Your task to perform on an android device: turn on notifications settings in the gmail app Image 0: 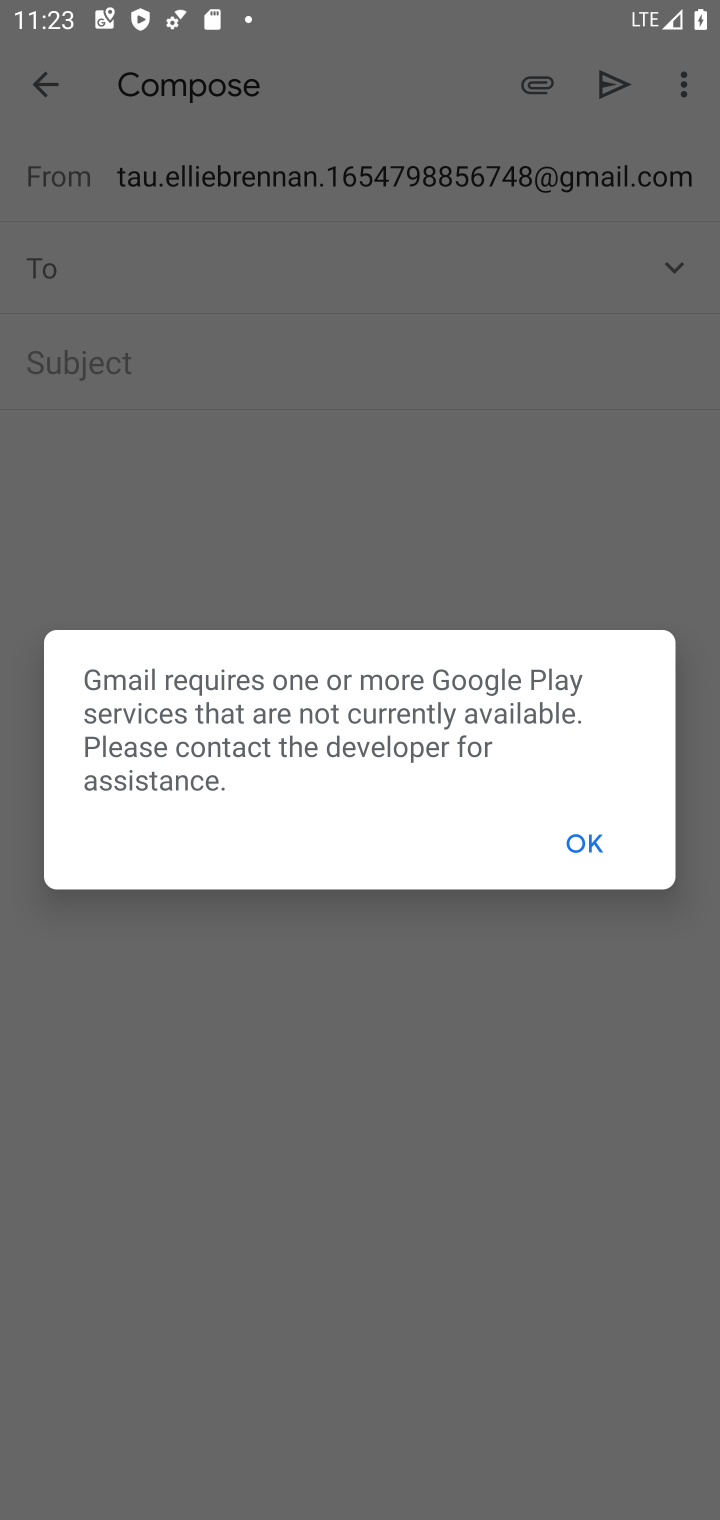
Step 0: click (588, 843)
Your task to perform on an android device: turn on notifications settings in the gmail app Image 1: 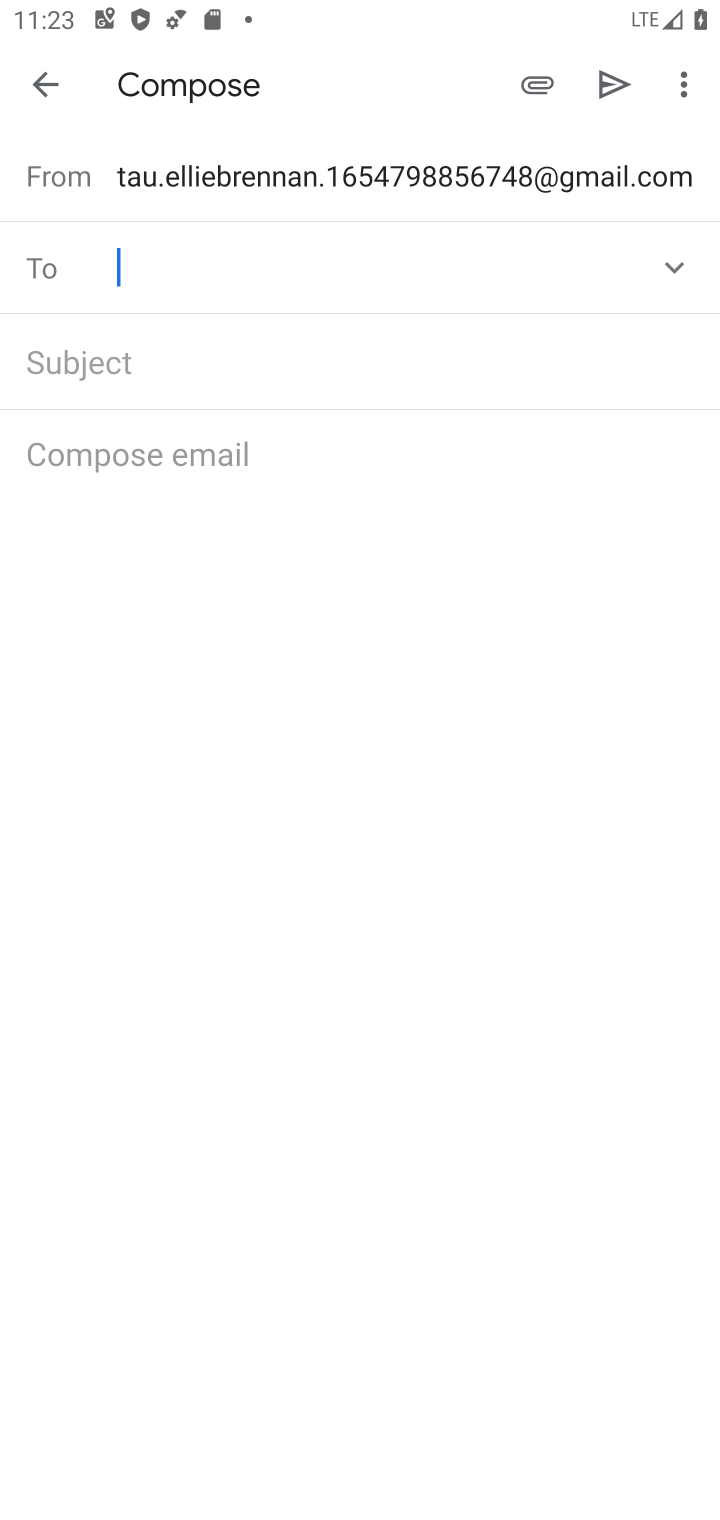
Step 1: press back button
Your task to perform on an android device: turn on notifications settings in the gmail app Image 2: 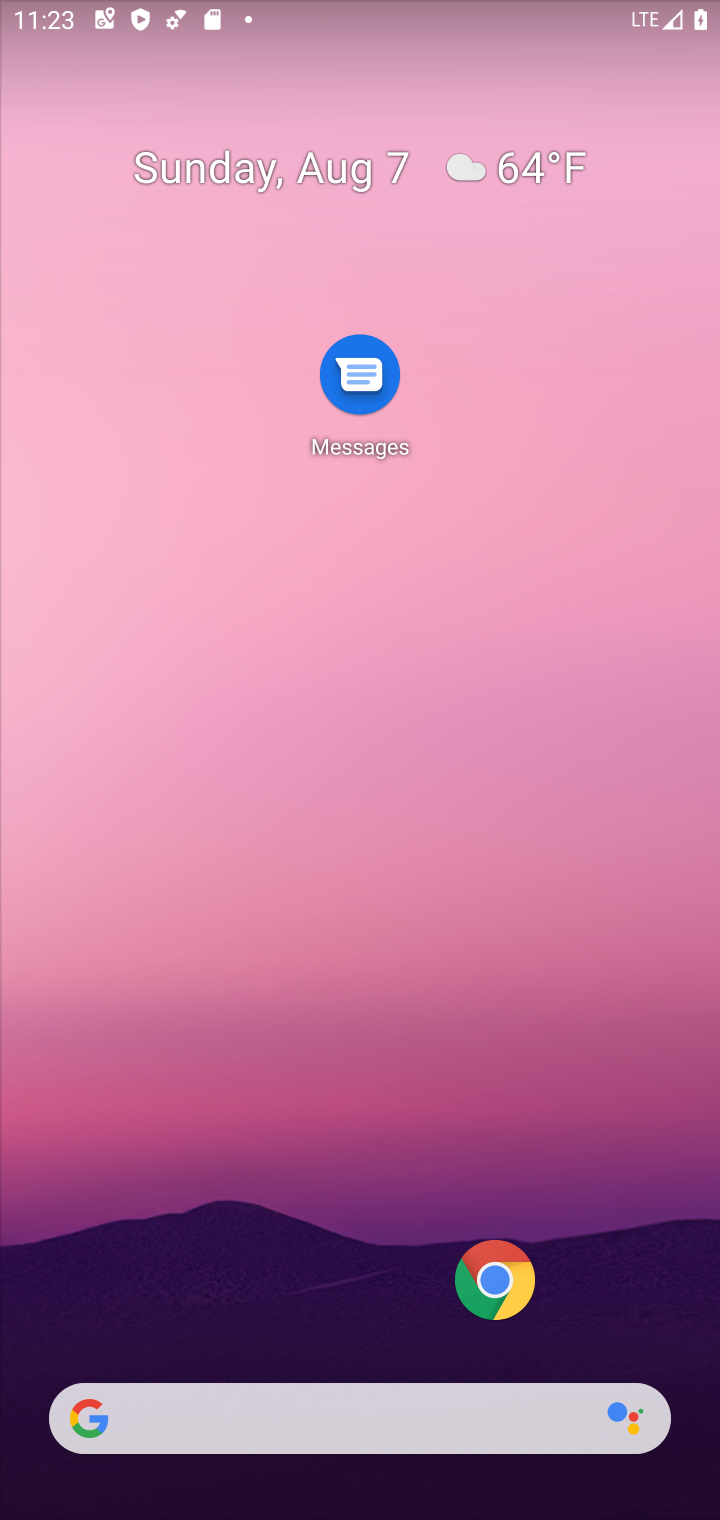
Step 2: drag from (280, 1311) to (466, 148)
Your task to perform on an android device: turn on notifications settings in the gmail app Image 3: 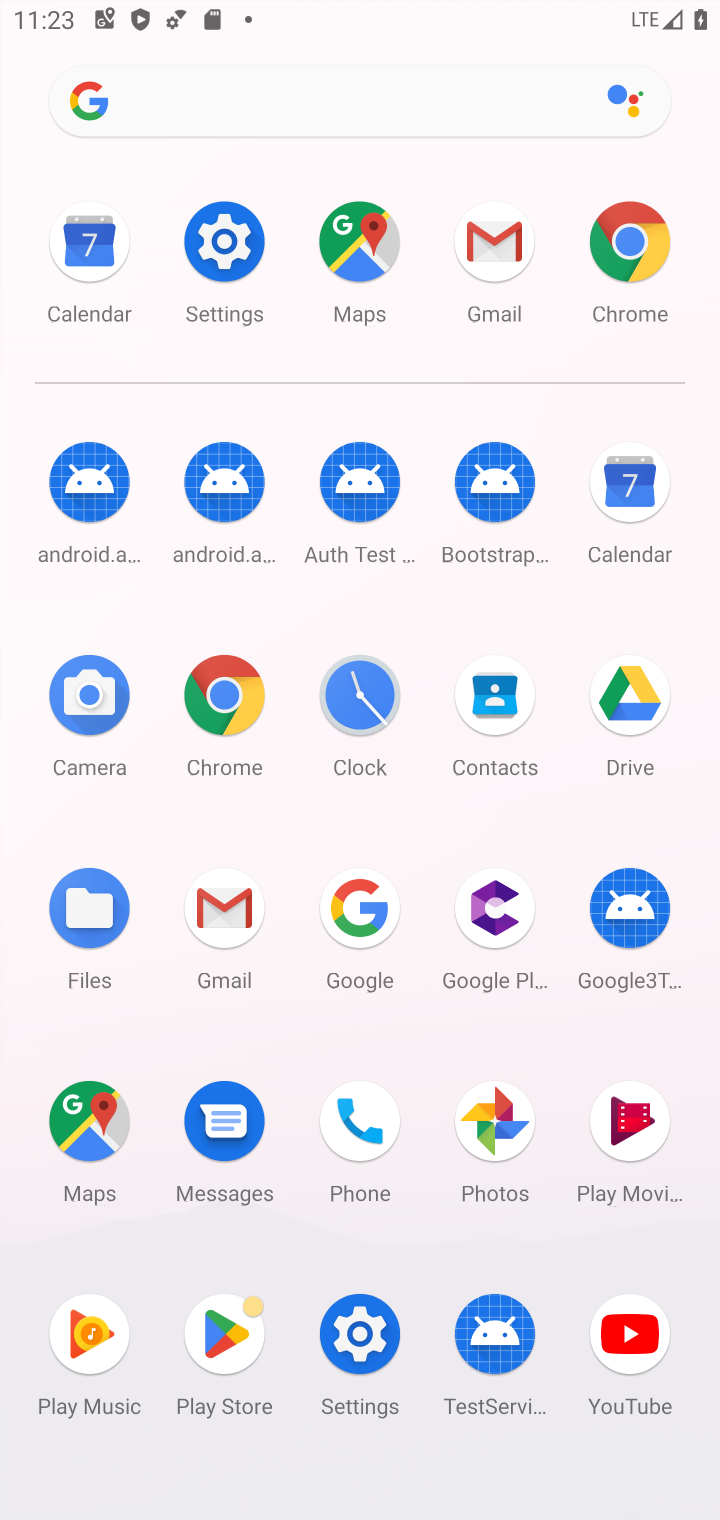
Step 3: click (492, 256)
Your task to perform on an android device: turn on notifications settings in the gmail app Image 4: 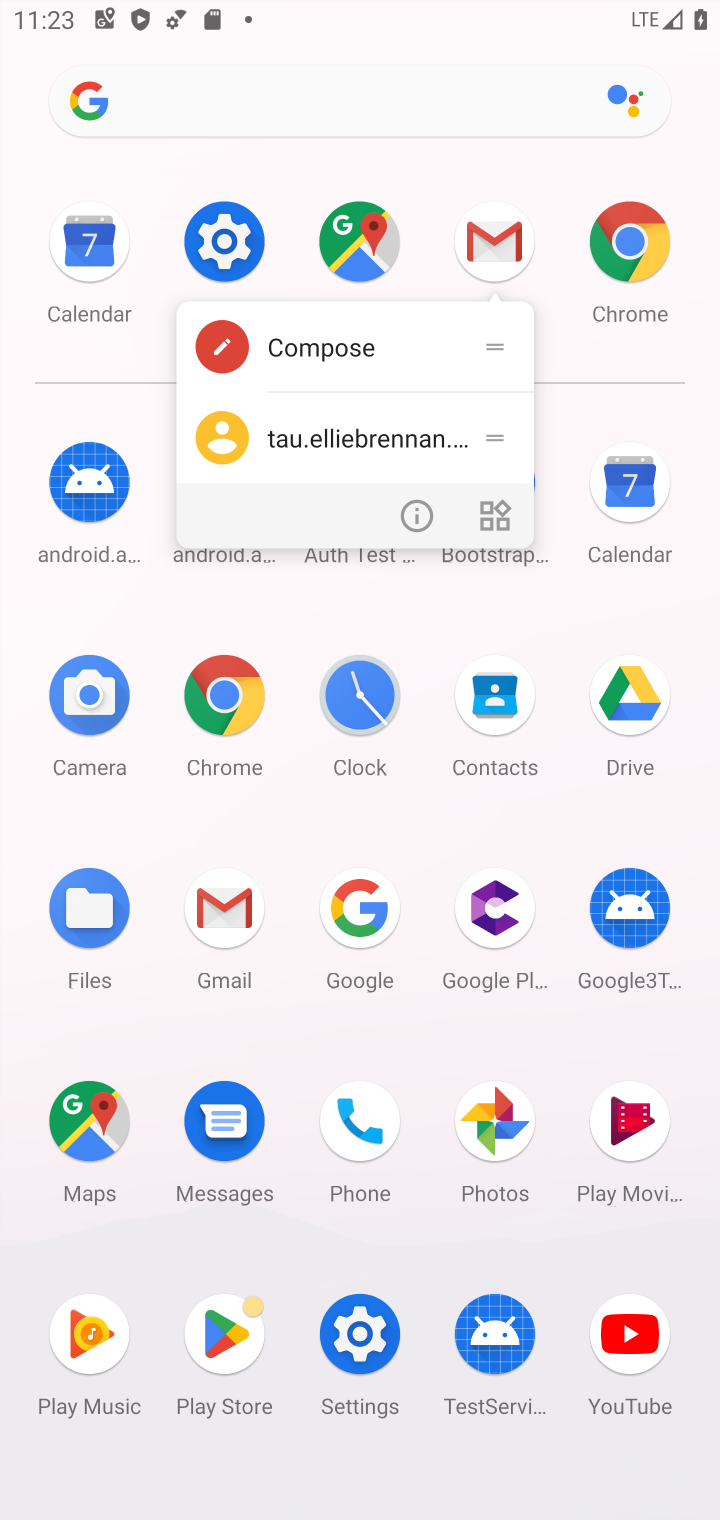
Step 4: click (403, 524)
Your task to perform on an android device: turn on notifications settings in the gmail app Image 5: 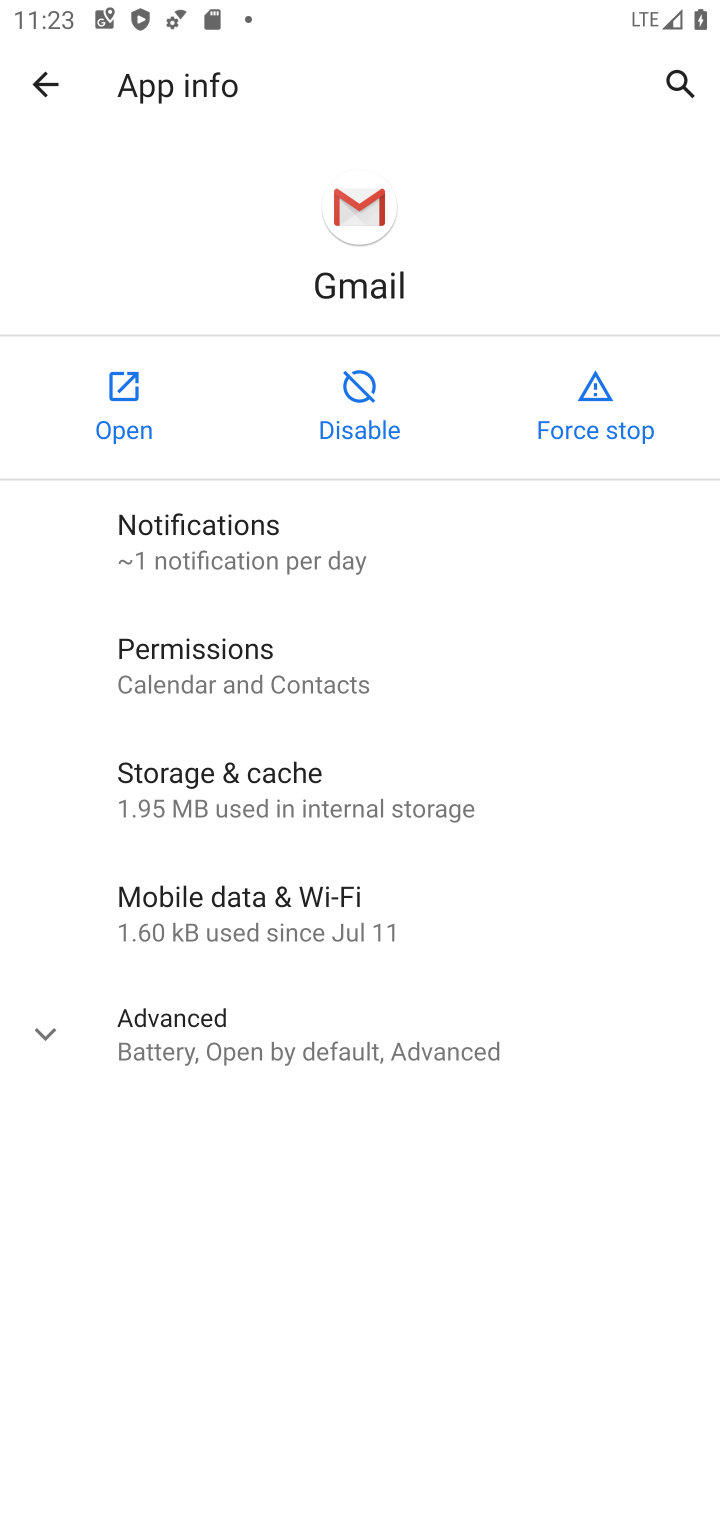
Step 5: click (316, 556)
Your task to perform on an android device: turn on notifications settings in the gmail app Image 6: 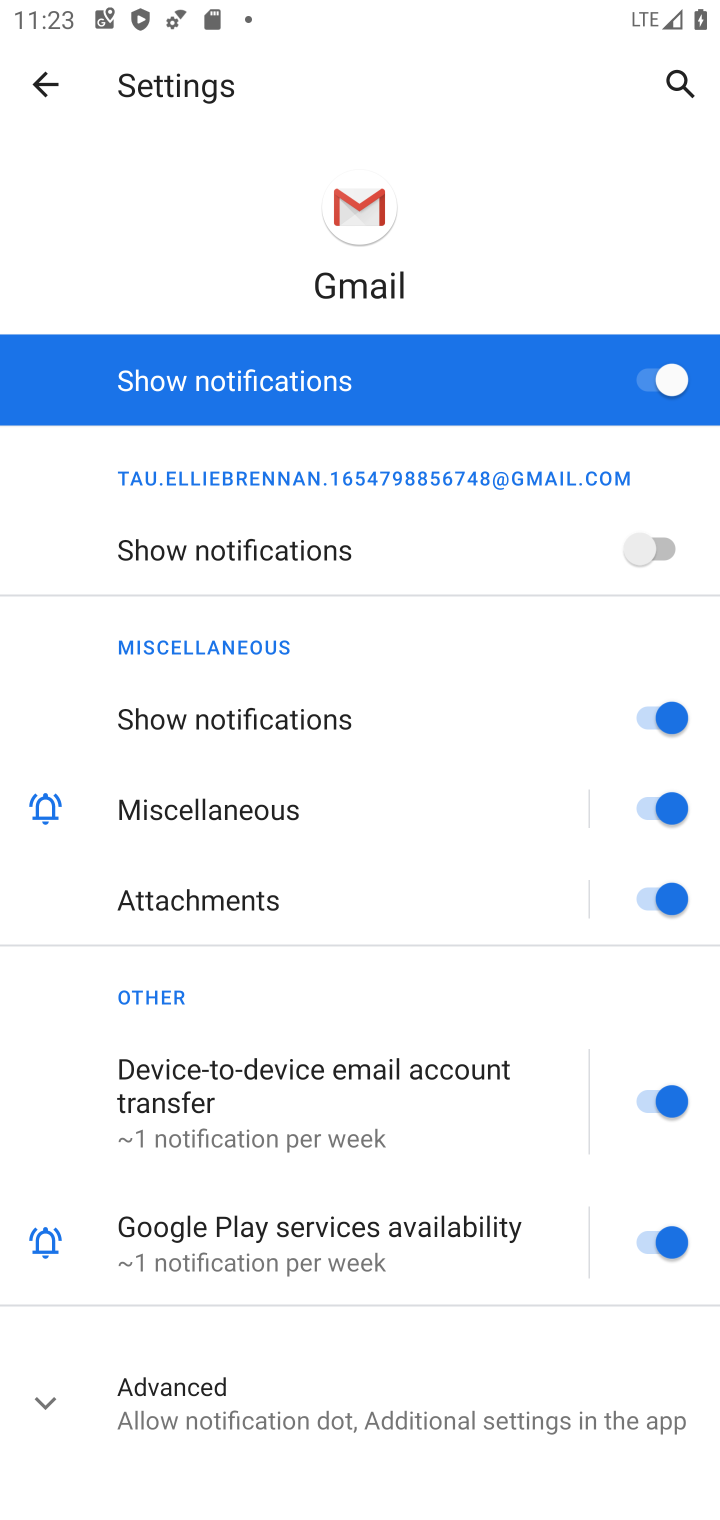
Step 6: task complete